Your task to perform on an android device: turn on airplane mode Image 0: 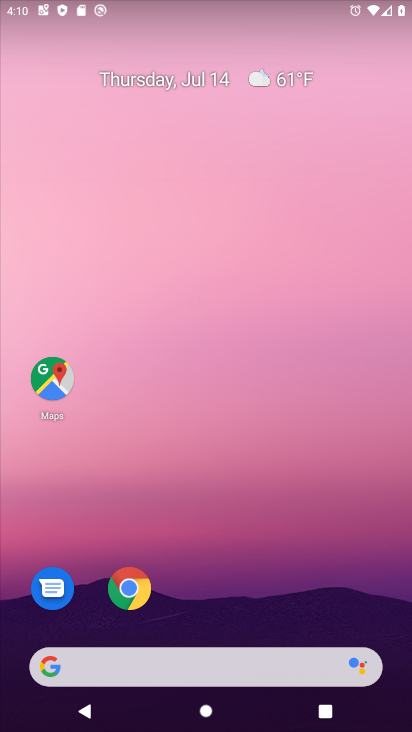
Step 0: press home button
Your task to perform on an android device: turn on airplane mode Image 1: 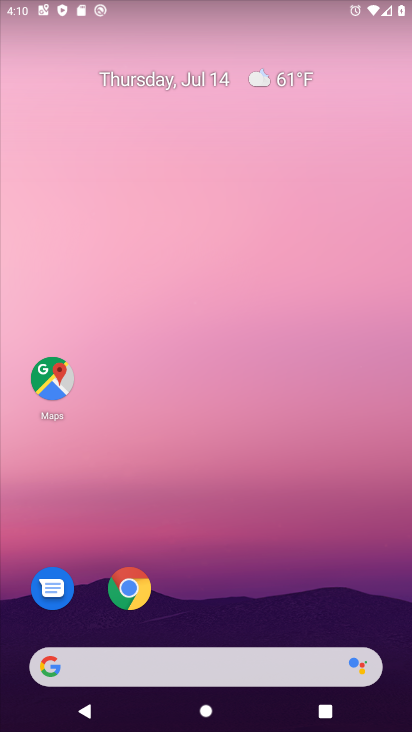
Step 1: drag from (277, 31) to (277, 316)
Your task to perform on an android device: turn on airplane mode Image 2: 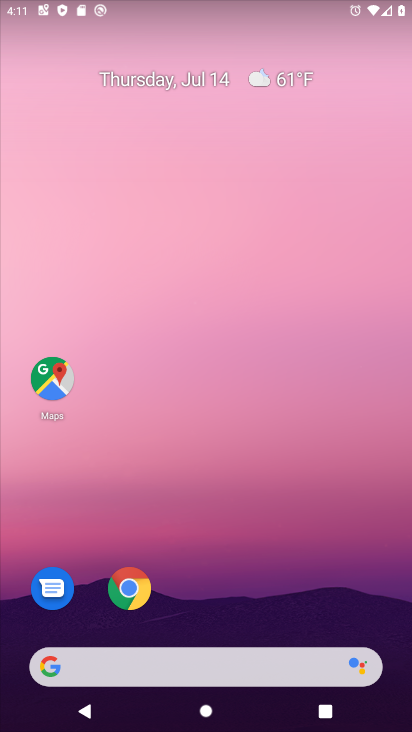
Step 2: drag from (215, 0) to (180, 610)
Your task to perform on an android device: turn on airplane mode Image 3: 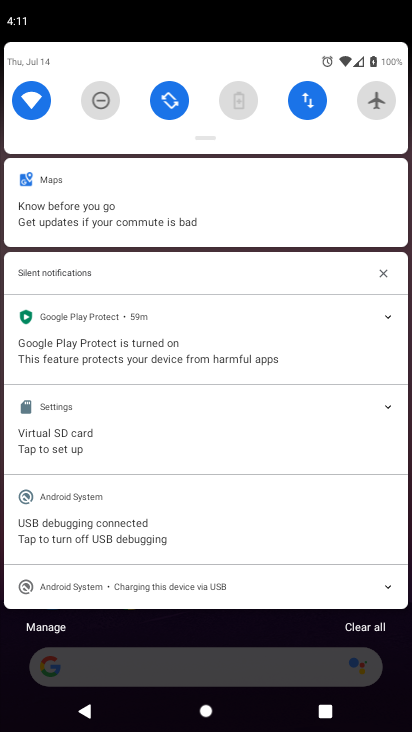
Step 3: click (365, 94)
Your task to perform on an android device: turn on airplane mode Image 4: 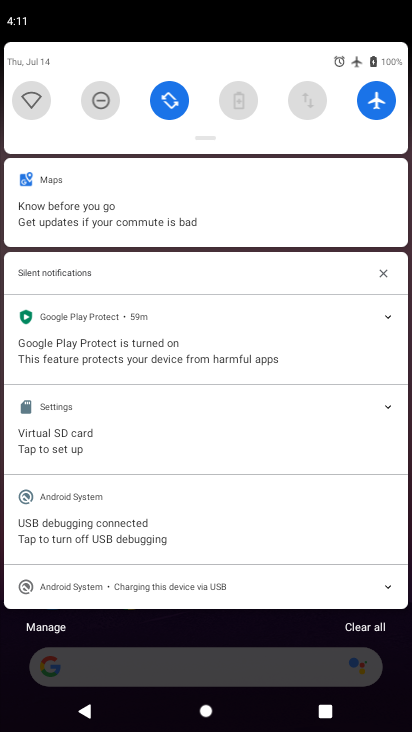
Step 4: task complete